Your task to perform on an android device: turn off improve location accuracy Image 0: 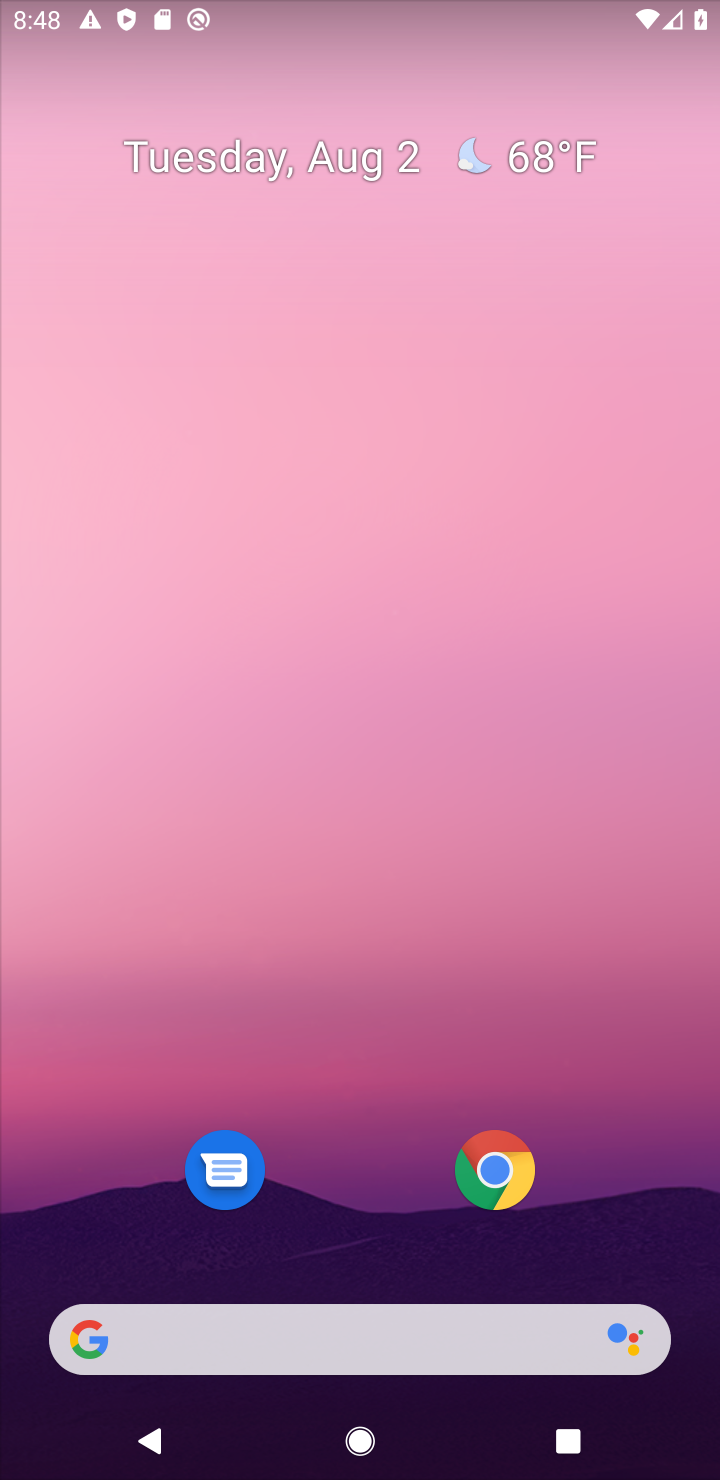
Step 0: drag from (379, 838) to (446, 84)
Your task to perform on an android device: turn off improve location accuracy Image 1: 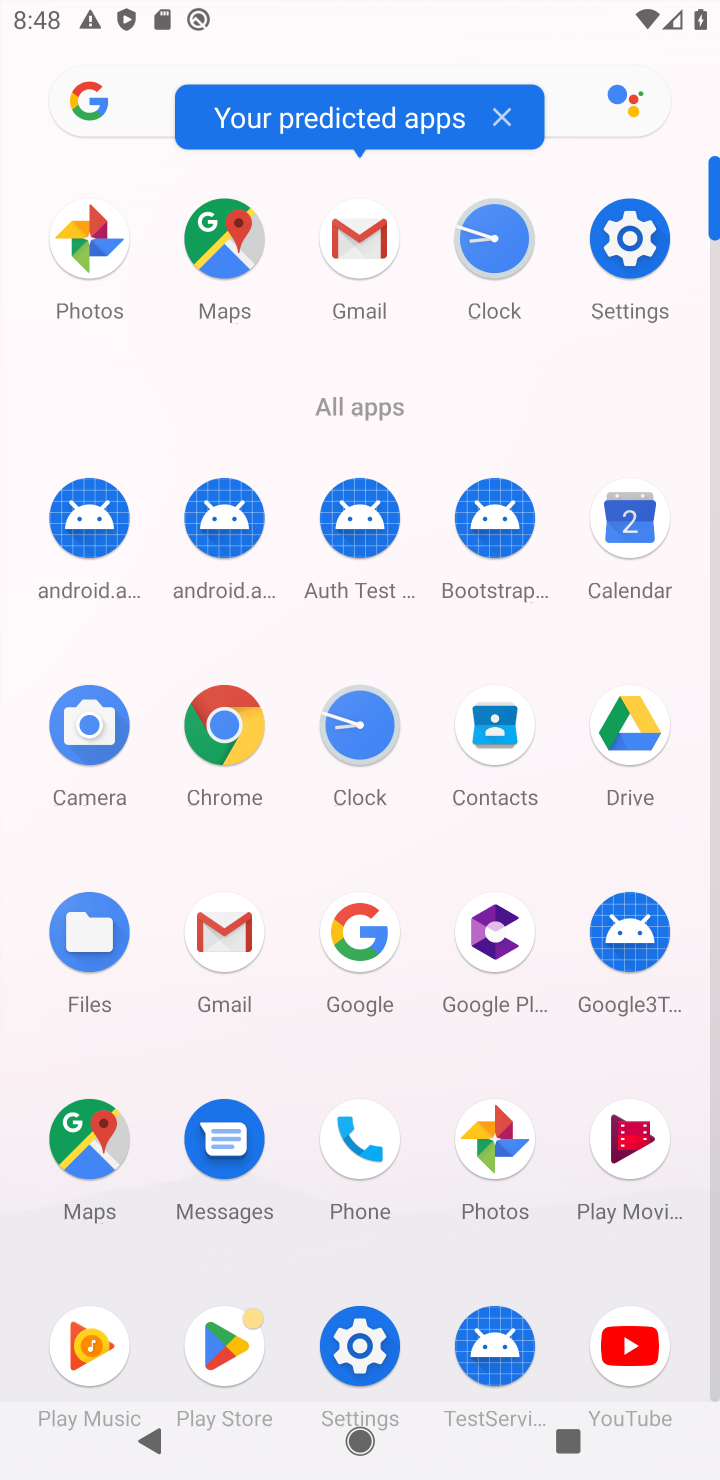
Step 1: click (220, 727)
Your task to perform on an android device: turn off improve location accuracy Image 2: 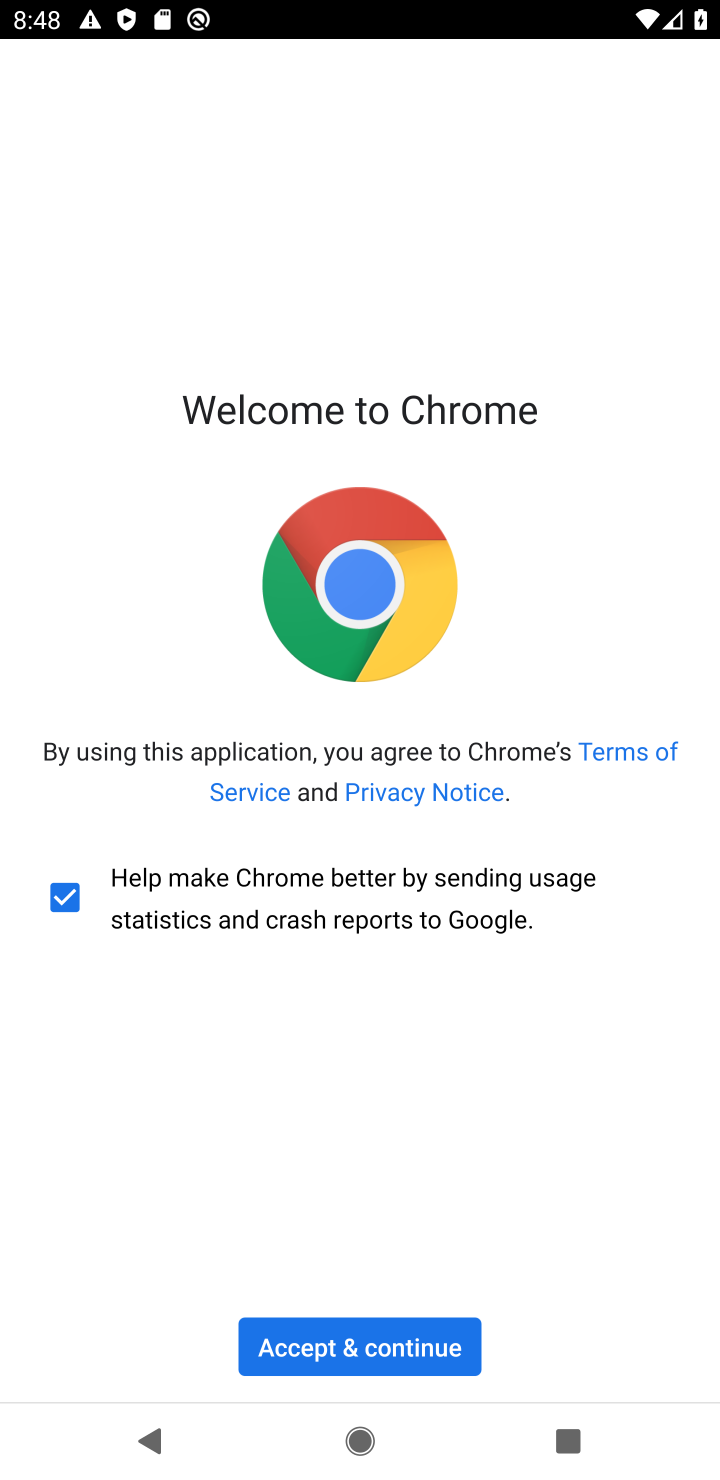
Step 2: click (369, 1360)
Your task to perform on an android device: turn off improve location accuracy Image 3: 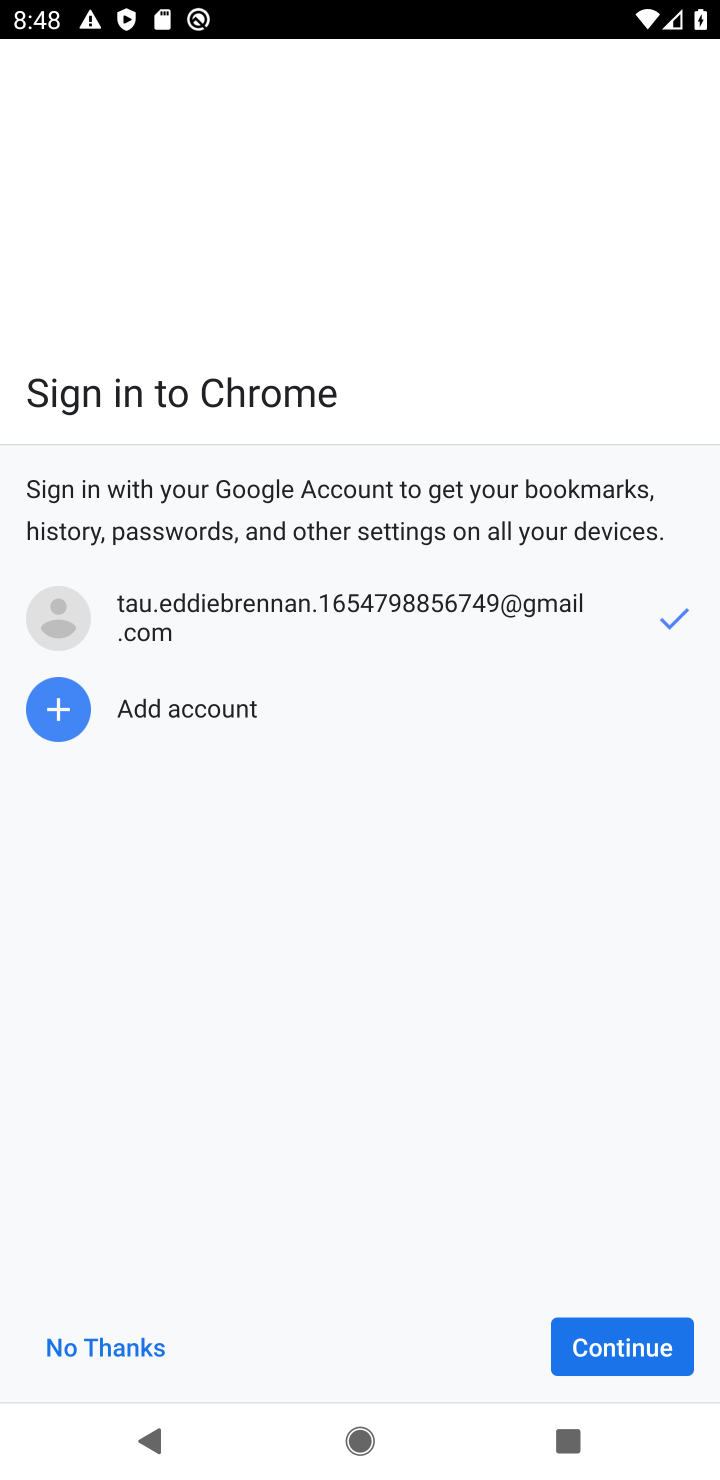
Step 3: click (591, 1360)
Your task to perform on an android device: turn off improve location accuracy Image 4: 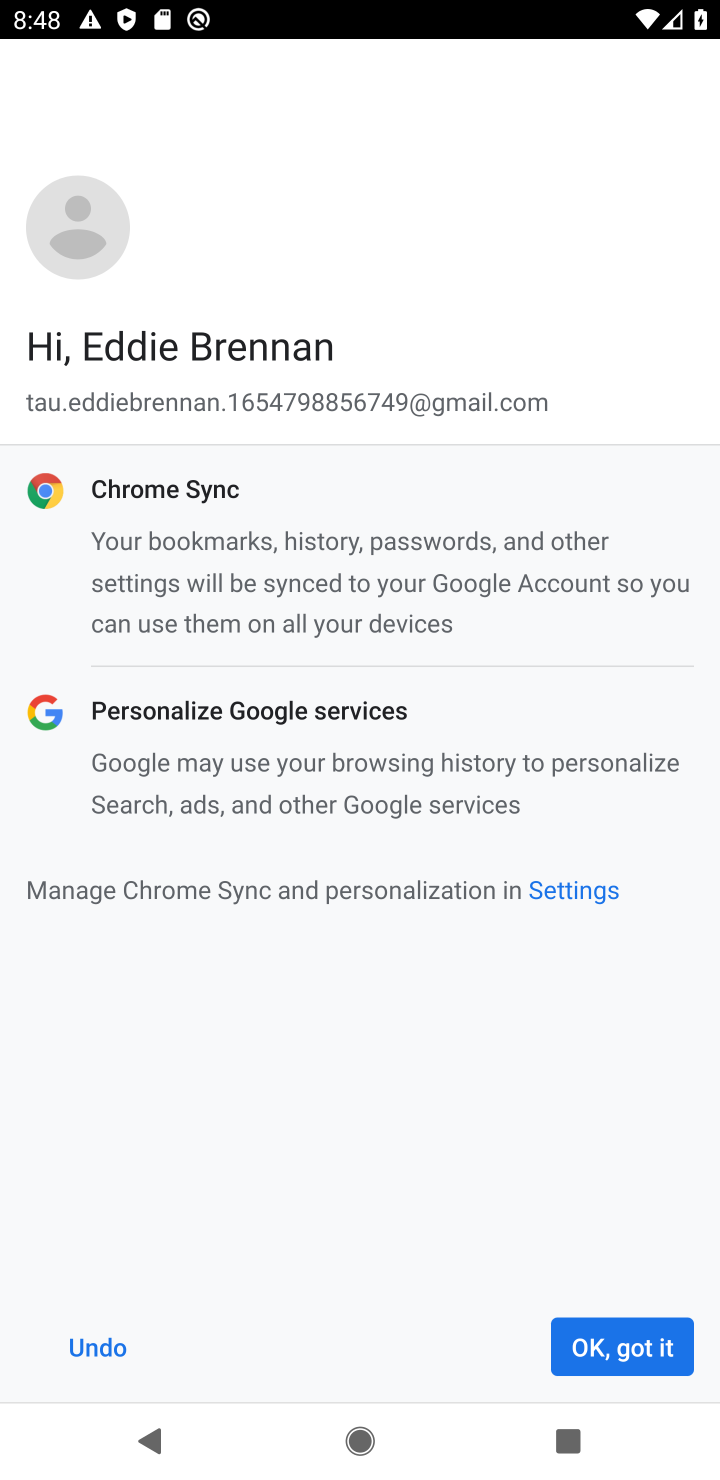
Step 4: click (591, 1360)
Your task to perform on an android device: turn off improve location accuracy Image 5: 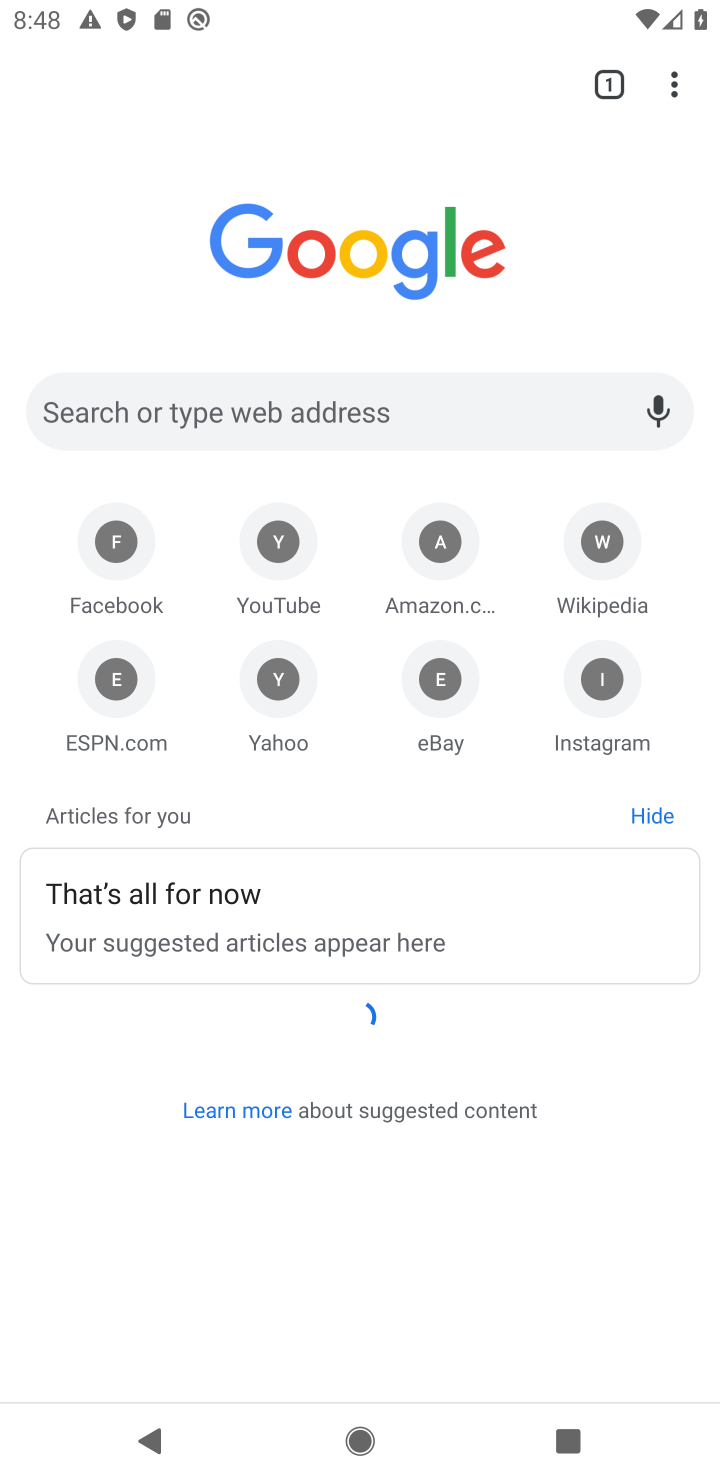
Step 5: press home button
Your task to perform on an android device: turn off improve location accuracy Image 6: 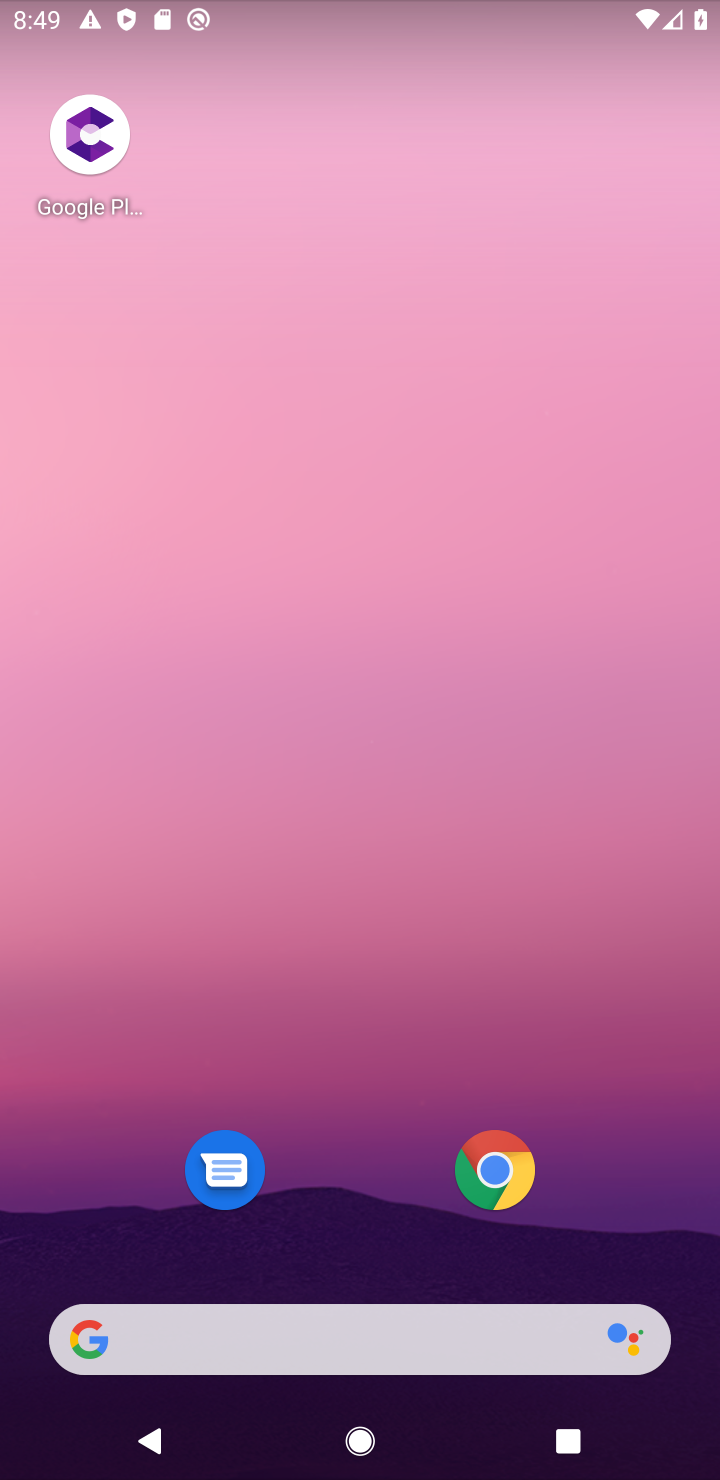
Step 6: drag from (350, 793) to (350, 269)
Your task to perform on an android device: turn off improve location accuracy Image 7: 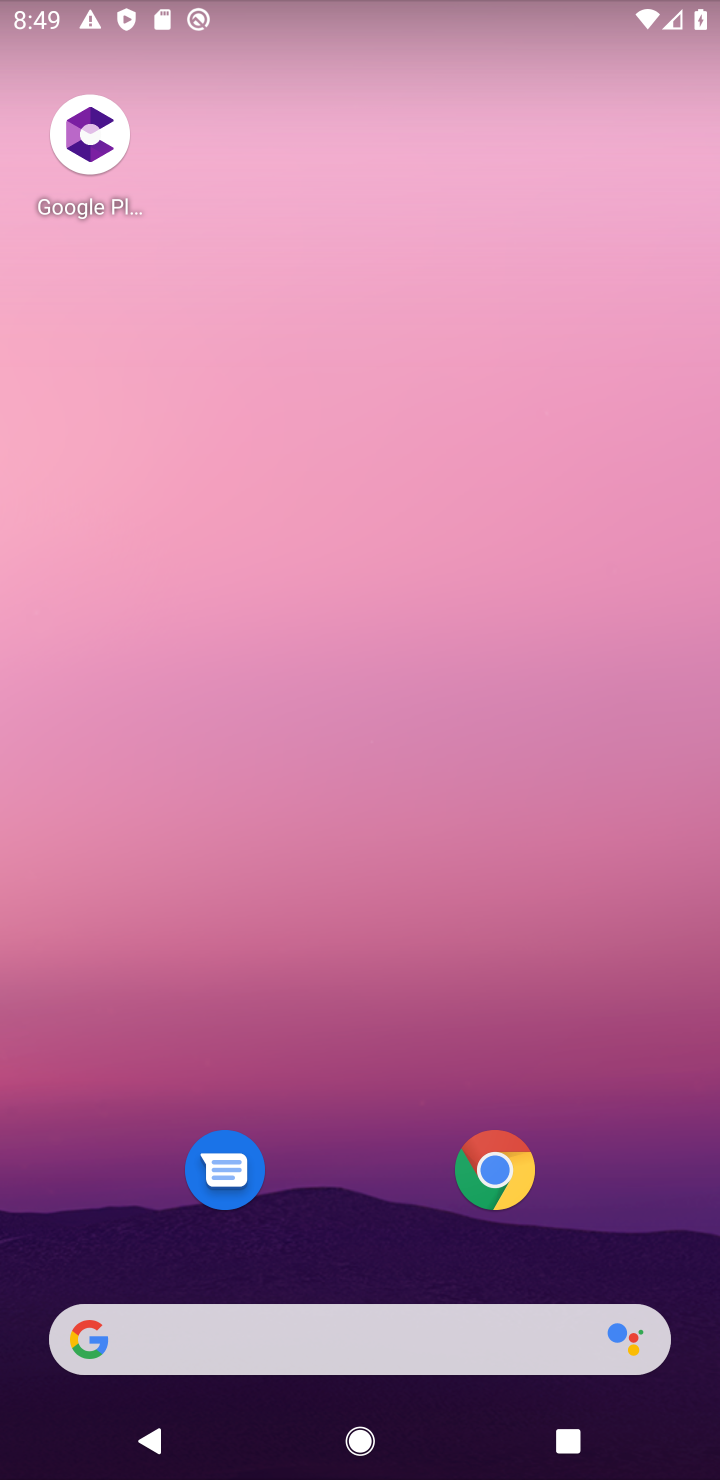
Step 7: drag from (301, 1172) to (339, 292)
Your task to perform on an android device: turn off improve location accuracy Image 8: 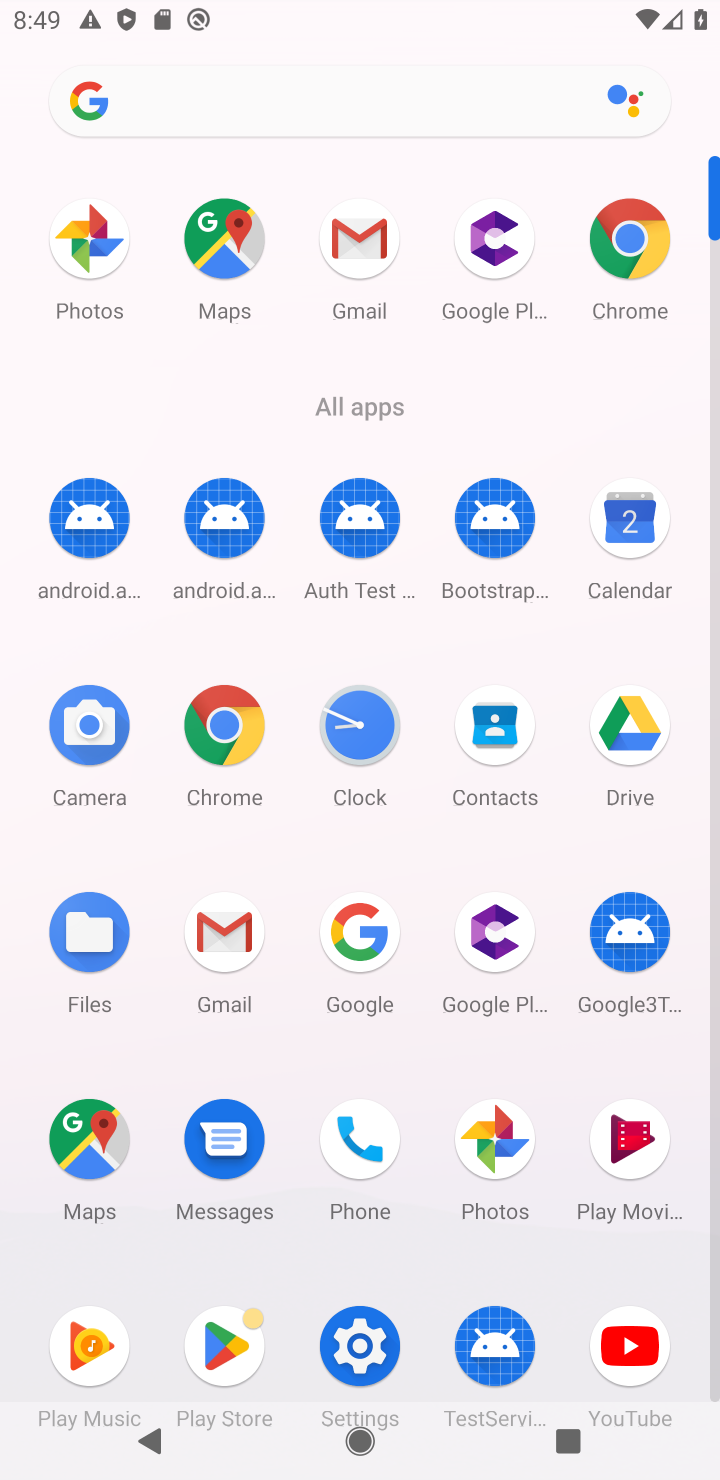
Step 8: click (375, 1346)
Your task to perform on an android device: turn off improve location accuracy Image 9: 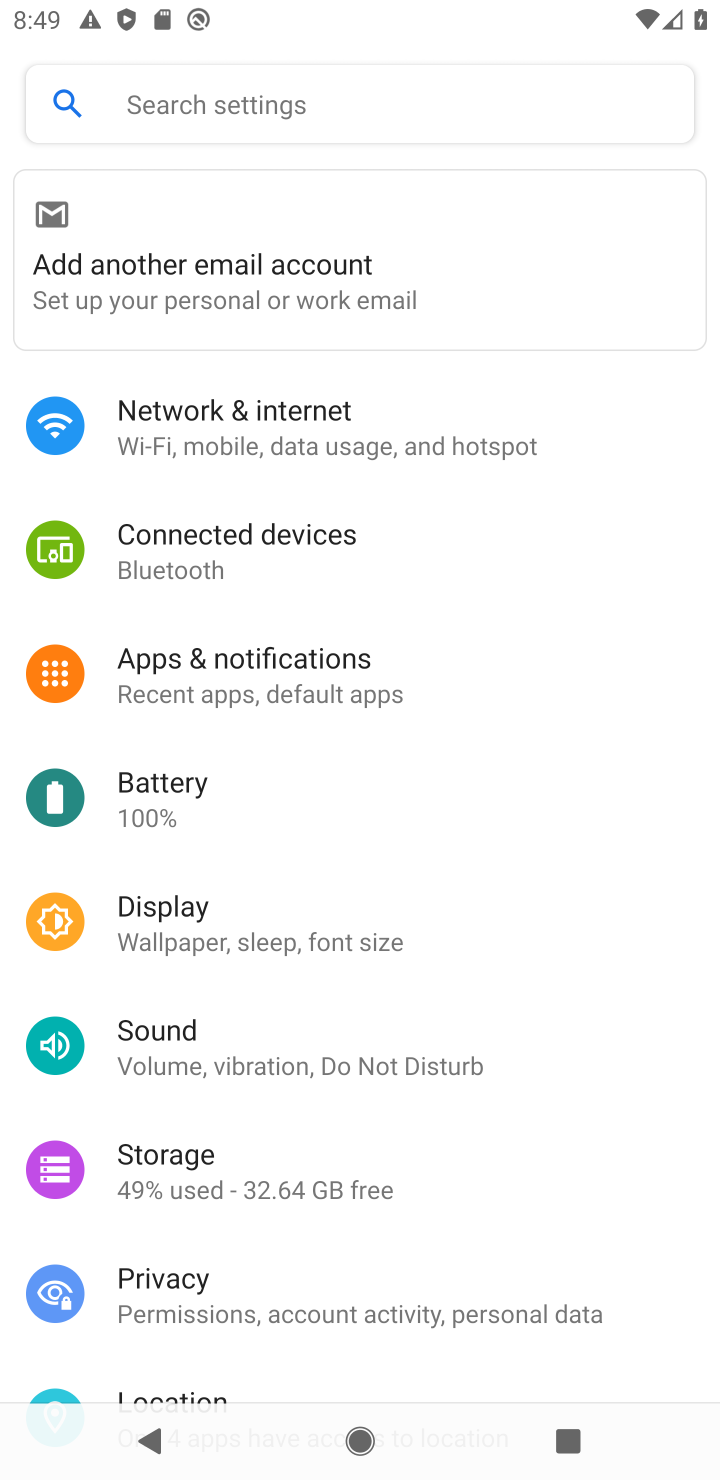
Step 9: click (97, 1402)
Your task to perform on an android device: turn off improve location accuracy Image 10: 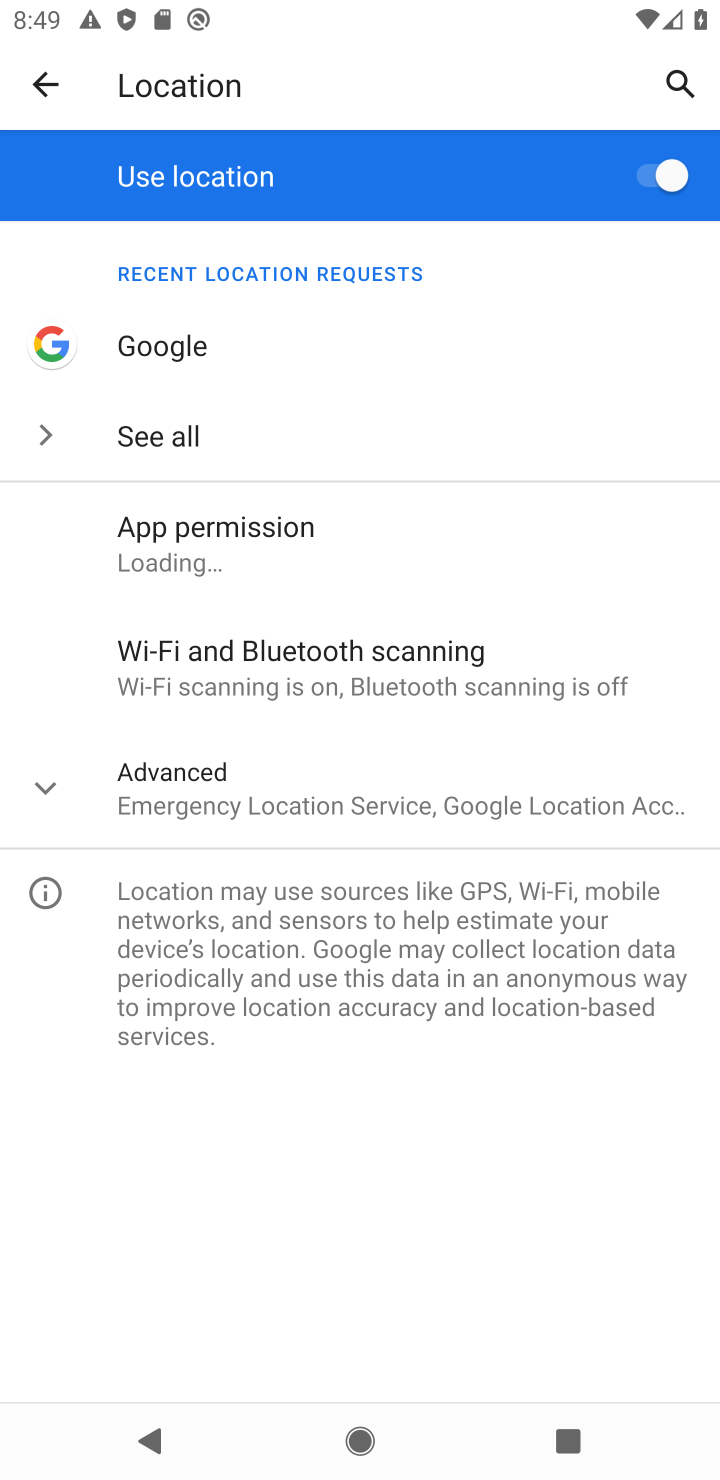
Step 10: click (249, 791)
Your task to perform on an android device: turn off improve location accuracy Image 11: 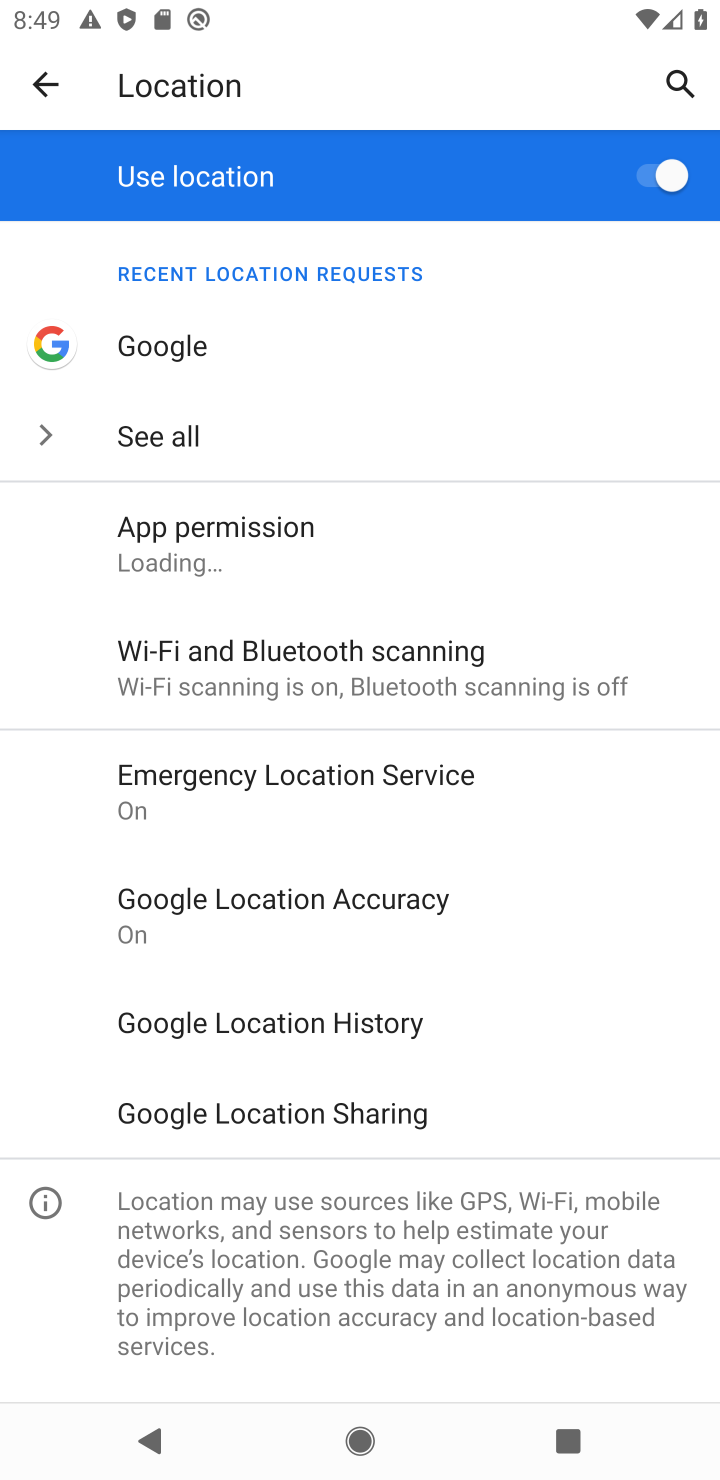
Step 11: click (367, 910)
Your task to perform on an android device: turn off improve location accuracy Image 12: 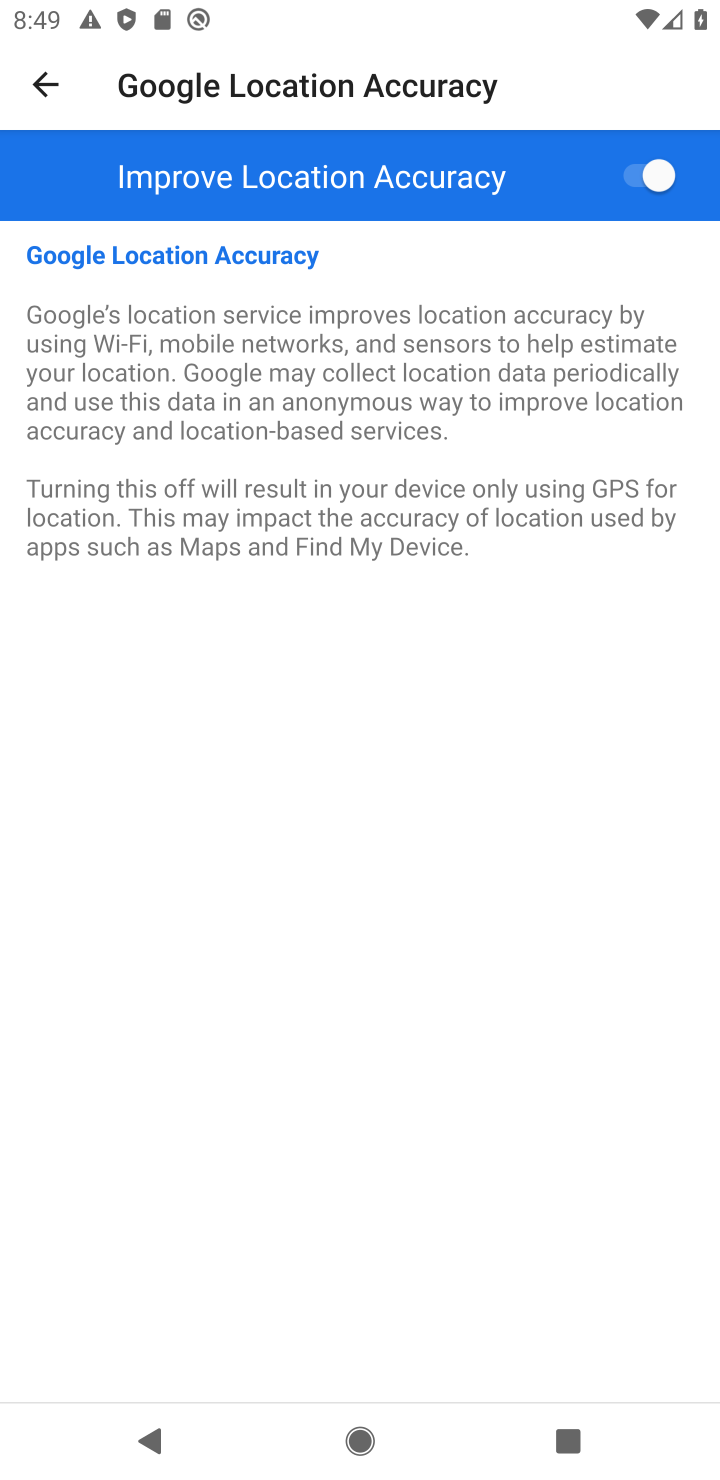
Step 12: click (625, 183)
Your task to perform on an android device: turn off improve location accuracy Image 13: 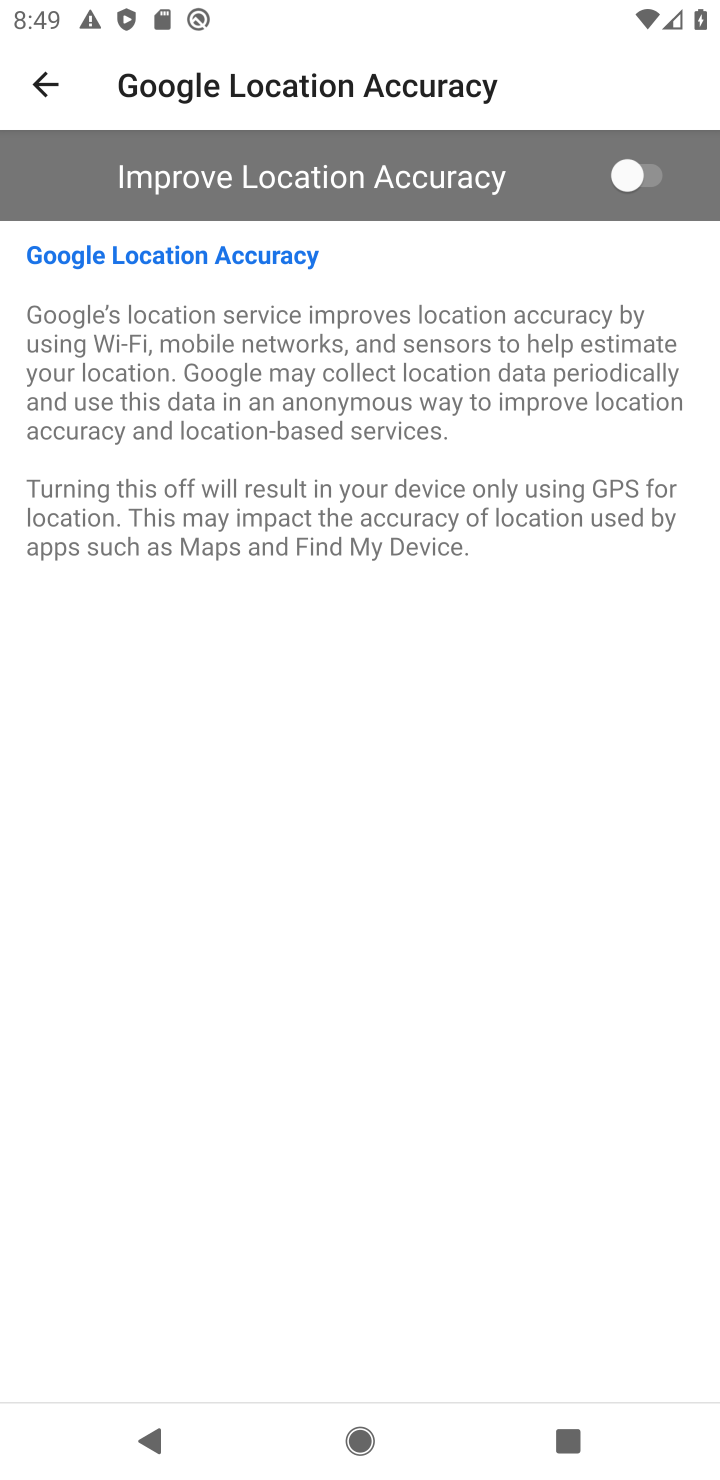
Step 13: task complete